Your task to perform on an android device: Open calendar and show me the second week of next month Image 0: 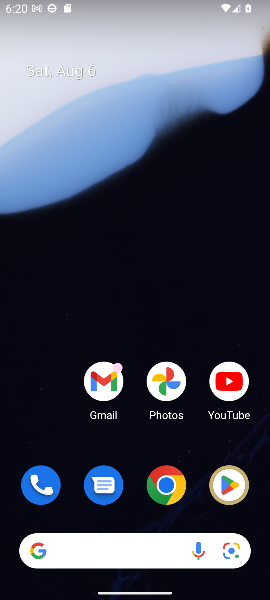
Step 0: press home button
Your task to perform on an android device: Open calendar and show me the second week of next month Image 1: 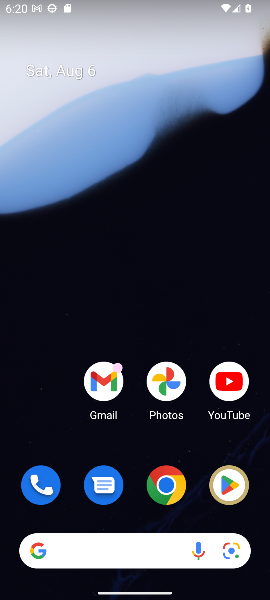
Step 1: drag from (39, 420) to (41, 8)
Your task to perform on an android device: Open calendar and show me the second week of next month Image 2: 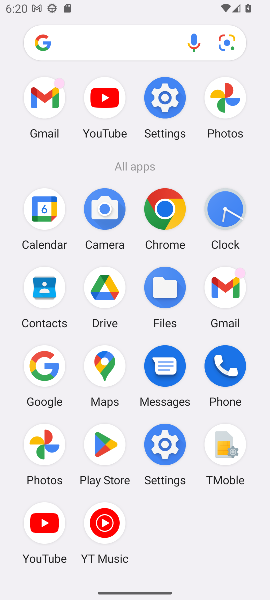
Step 2: click (41, 208)
Your task to perform on an android device: Open calendar and show me the second week of next month Image 3: 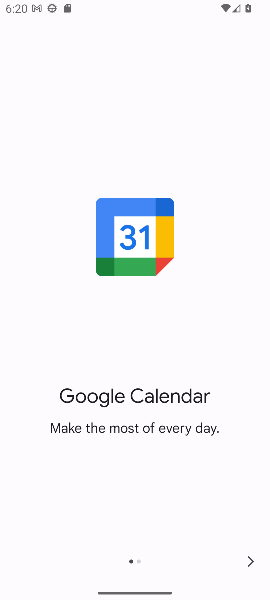
Step 3: click (251, 560)
Your task to perform on an android device: Open calendar and show me the second week of next month Image 4: 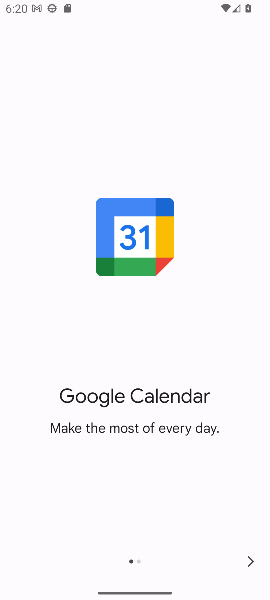
Step 4: click (251, 560)
Your task to perform on an android device: Open calendar and show me the second week of next month Image 5: 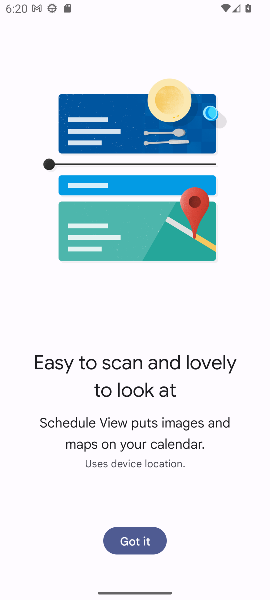
Step 5: click (129, 537)
Your task to perform on an android device: Open calendar and show me the second week of next month Image 6: 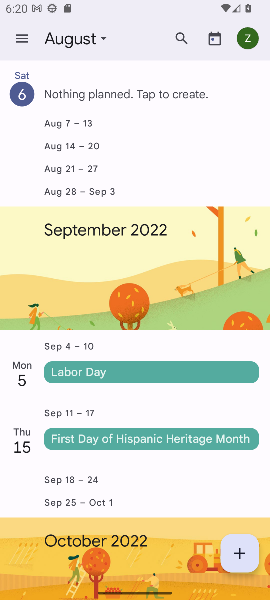
Step 6: click (20, 39)
Your task to perform on an android device: Open calendar and show me the second week of next month Image 7: 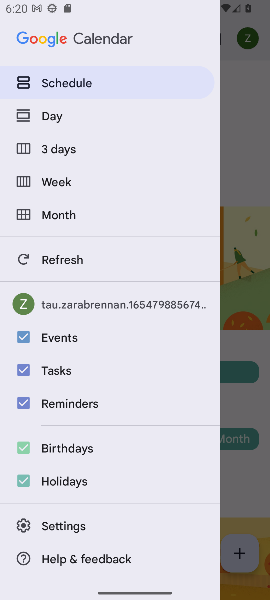
Step 7: click (54, 178)
Your task to perform on an android device: Open calendar and show me the second week of next month Image 8: 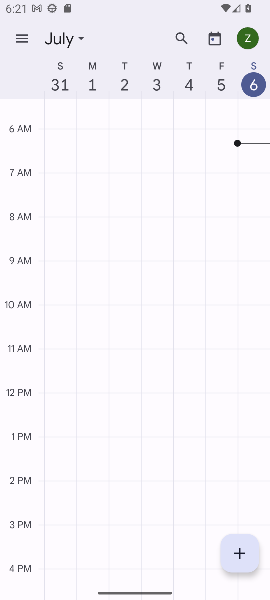
Step 8: click (80, 38)
Your task to perform on an android device: Open calendar and show me the second week of next month Image 9: 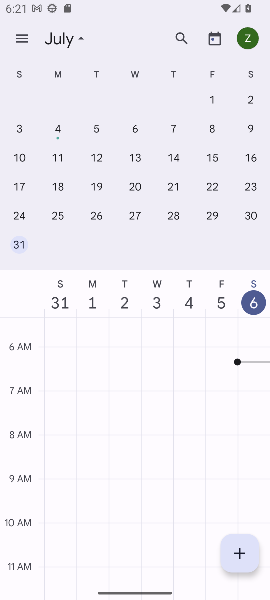
Step 9: drag from (237, 170) to (26, 163)
Your task to perform on an android device: Open calendar and show me the second week of next month Image 10: 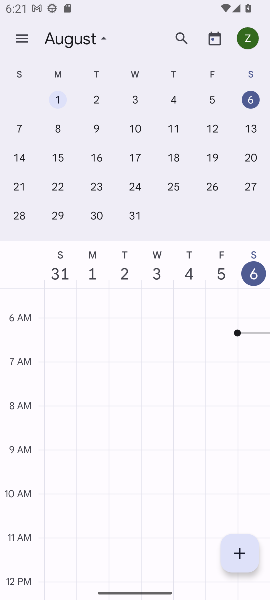
Step 10: drag from (235, 168) to (31, 163)
Your task to perform on an android device: Open calendar and show me the second week of next month Image 11: 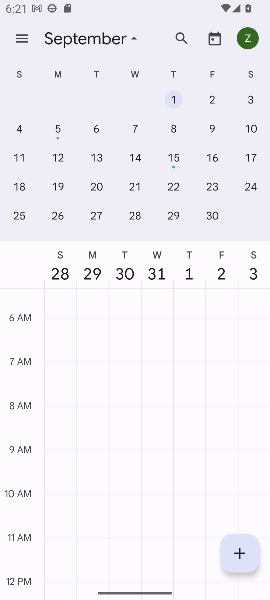
Step 11: click (130, 130)
Your task to perform on an android device: Open calendar and show me the second week of next month Image 12: 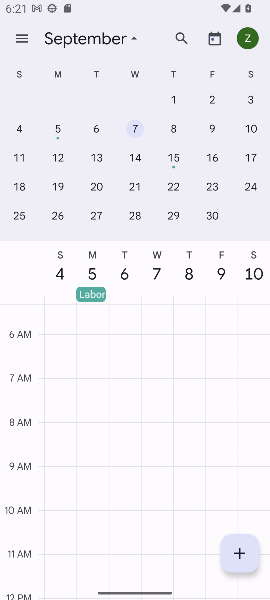
Step 12: task complete